Your task to perform on an android device: toggle notifications settings in the gmail app Image 0: 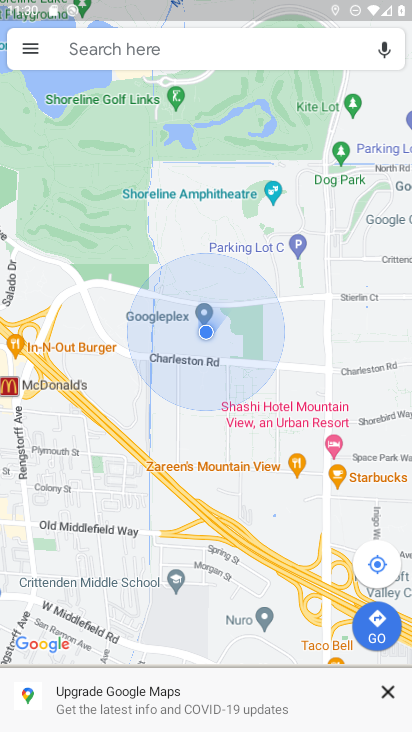
Step 0: press home button
Your task to perform on an android device: toggle notifications settings in the gmail app Image 1: 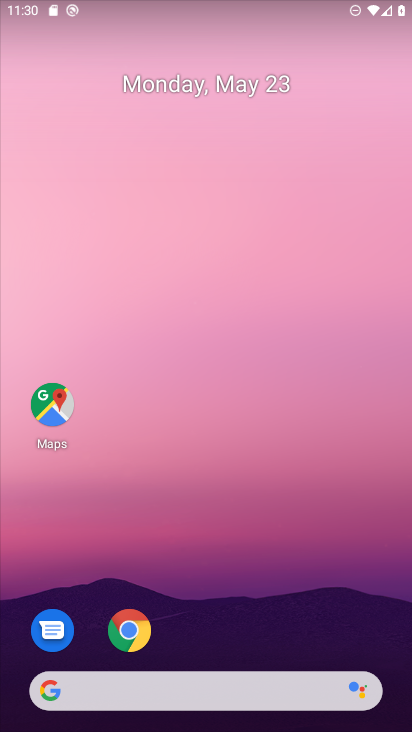
Step 1: drag from (187, 632) to (301, 303)
Your task to perform on an android device: toggle notifications settings in the gmail app Image 2: 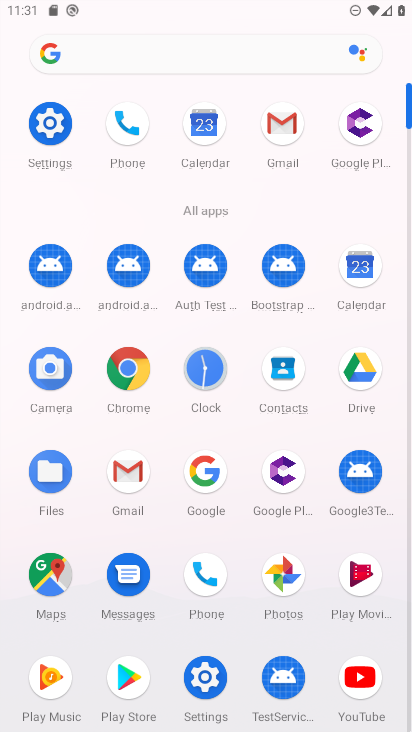
Step 2: click (287, 132)
Your task to perform on an android device: toggle notifications settings in the gmail app Image 3: 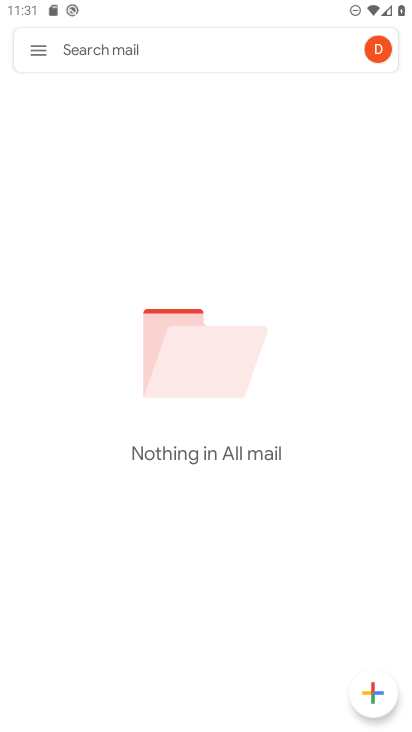
Step 3: click (49, 44)
Your task to perform on an android device: toggle notifications settings in the gmail app Image 4: 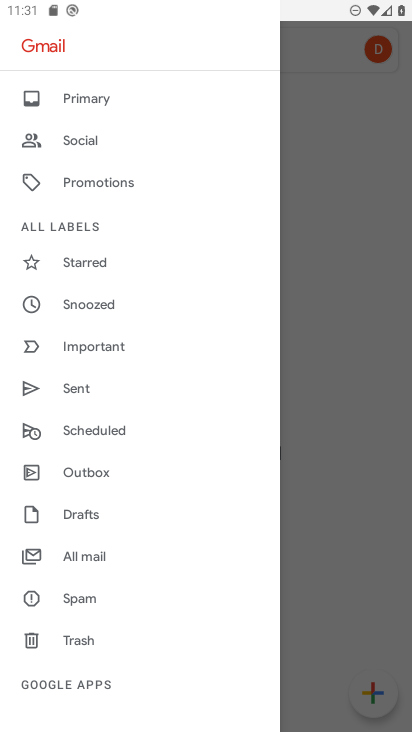
Step 4: drag from (124, 608) to (164, 267)
Your task to perform on an android device: toggle notifications settings in the gmail app Image 5: 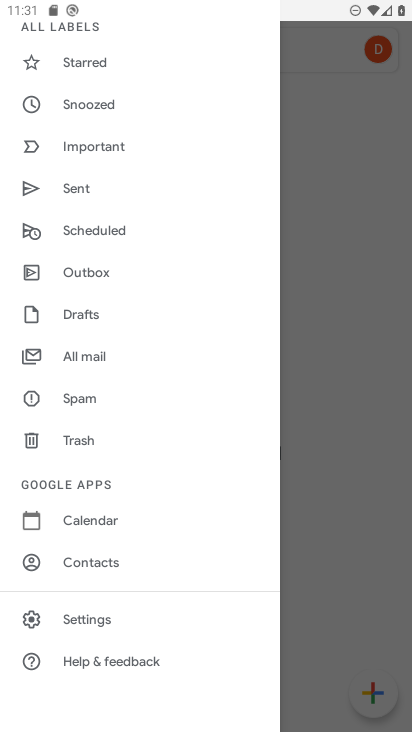
Step 5: click (87, 613)
Your task to perform on an android device: toggle notifications settings in the gmail app Image 6: 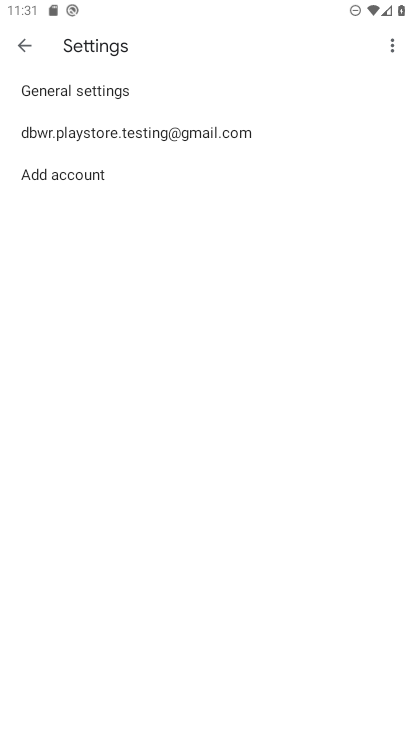
Step 6: click (236, 136)
Your task to perform on an android device: toggle notifications settings in the gmail app Image 7: 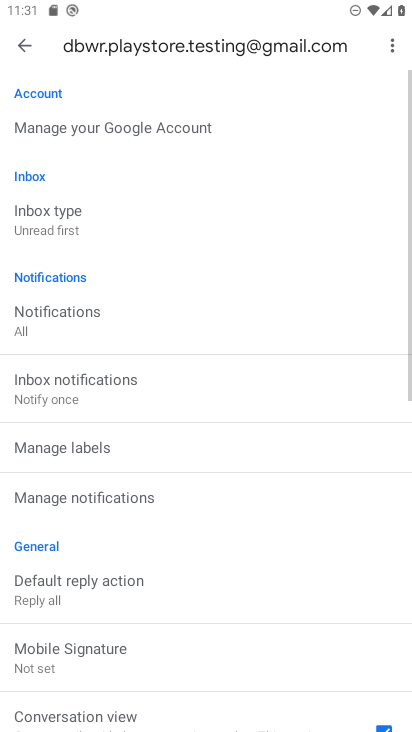
Step 7: click (141, 505)
Your task to perform on an android device: toggle notifications settings in the gmail app Image 8: 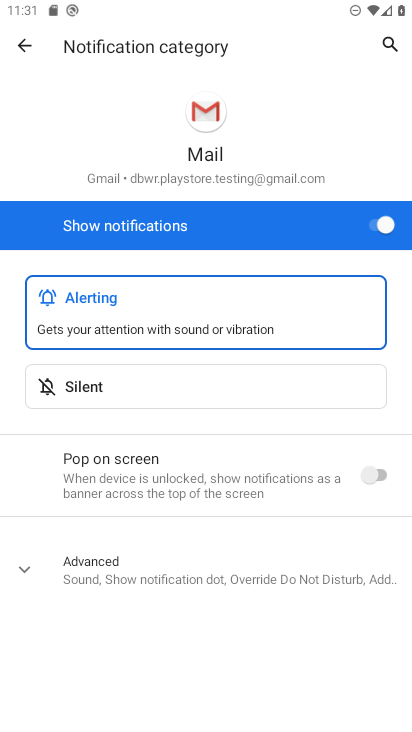
Step 8: click (381, 235)
Your task to perform on an android device: toggle notifications settings in the gmail app Image 9: 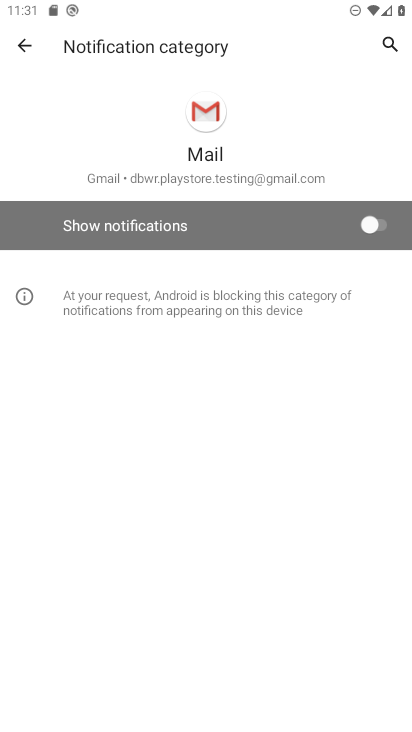
Step 9: task complete